Your task to perform on an android device: Open battery settings Image 0: 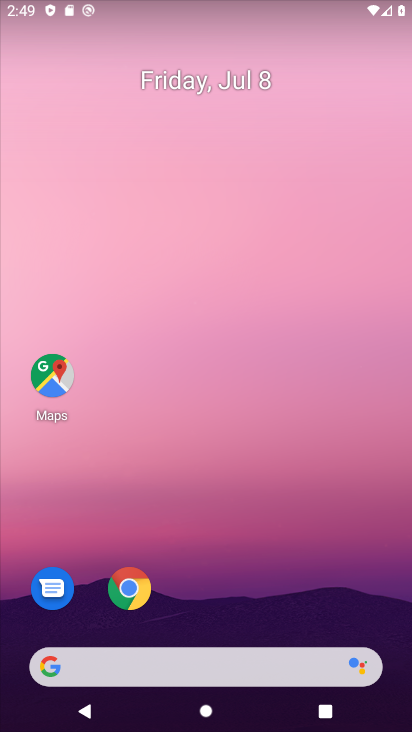
Step 0: drag from (197, 660) to (318, 181)
Your task to perform on an android device: Open battery settings Image 1: 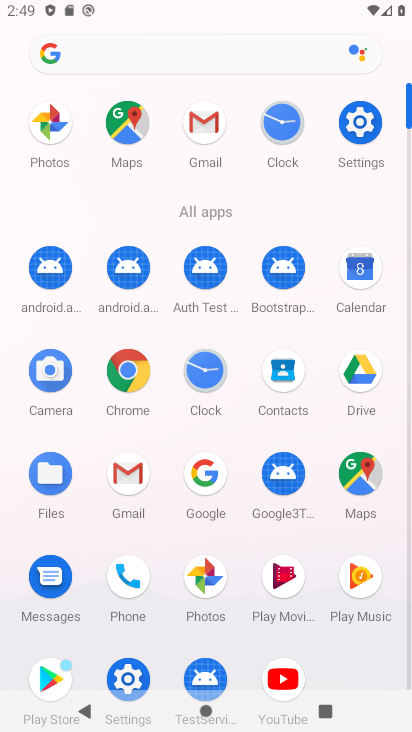
Step 1: click (347, 127)
Your task to perform on an android device: Open battery settings Image 2: 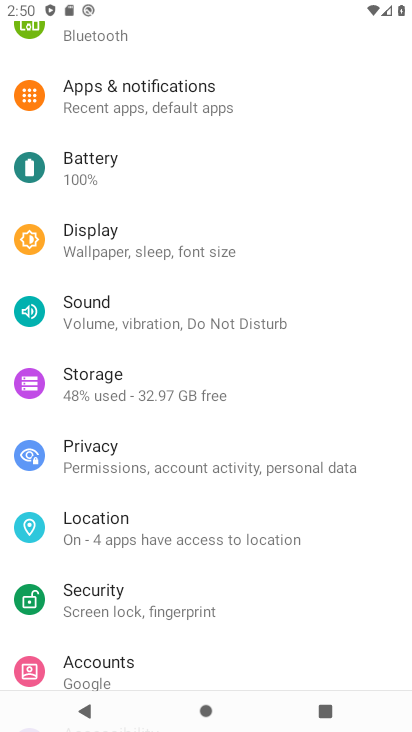
Step 2: click (88, 161)
Your task to perform on an android device: Open battery settings Image 3: 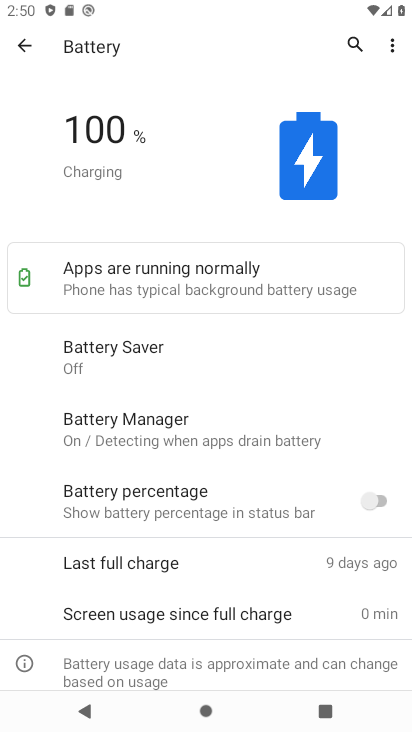
Step 3: task complete